Your task to perform on an android device: Go to internet settings Image 0: 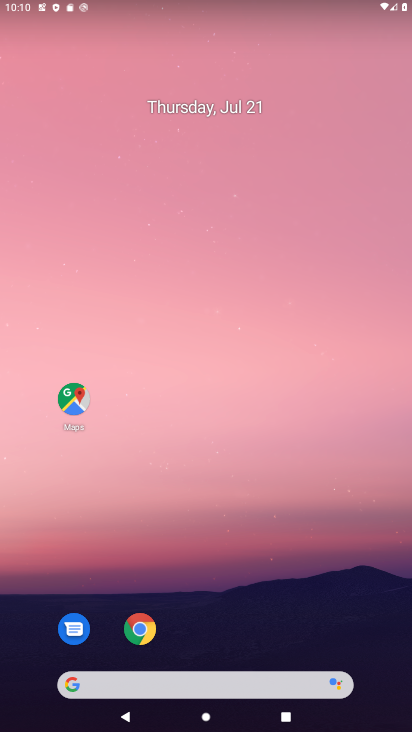
Step 0: press home button
Your task to perform on an android device: Go to internet settings Image 1: 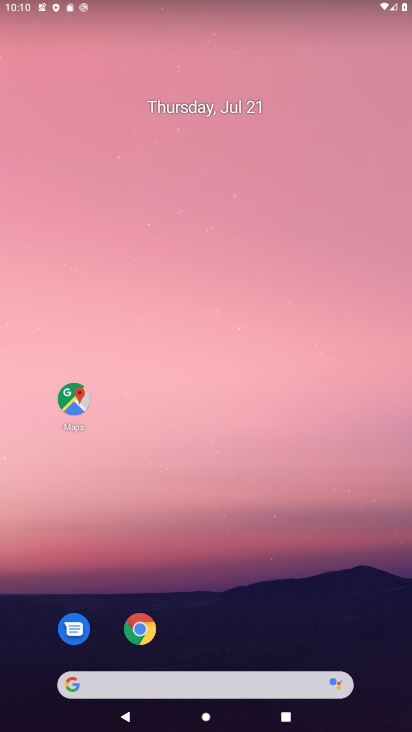
Step 1: drag from (258, 624) to (184, 264)
Your task to perform on an android device: Go to internet settings Image 2: 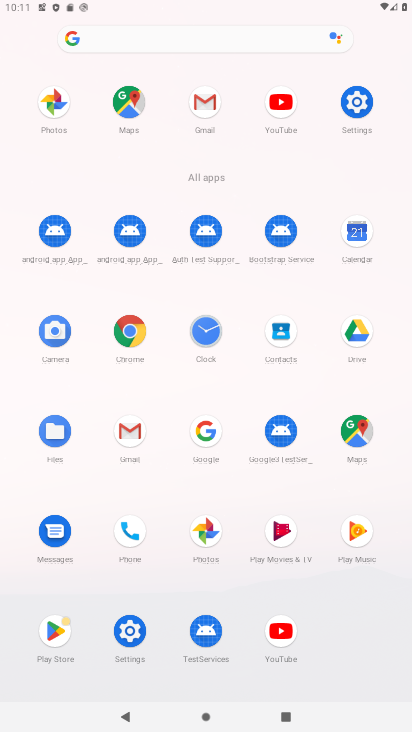
Step 2: click (363, 101)
Your task to perform on an android device: Go to internet settings Image 3: 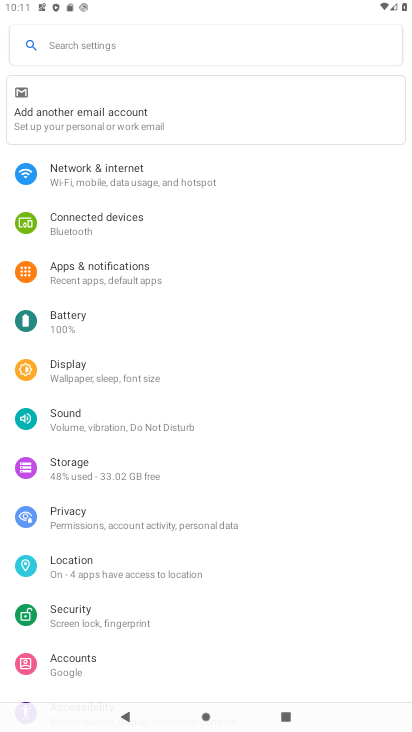
Step 3: click (115, 168)
Your task to perform on an android device: Go to internet settings Image 4: 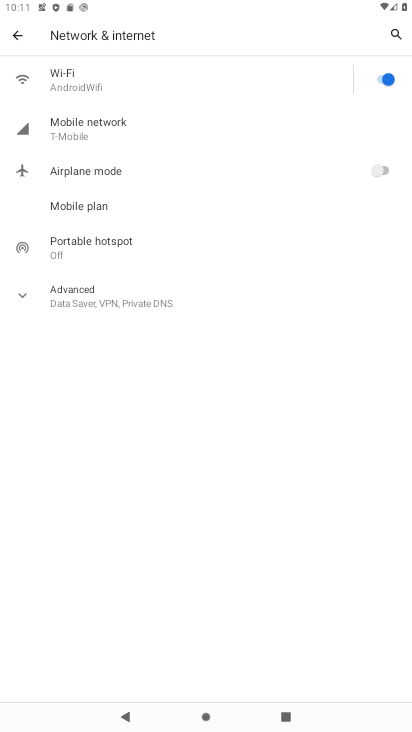
Step 4: task complete